Your task to perform on an android device: check out phone information Image 0: 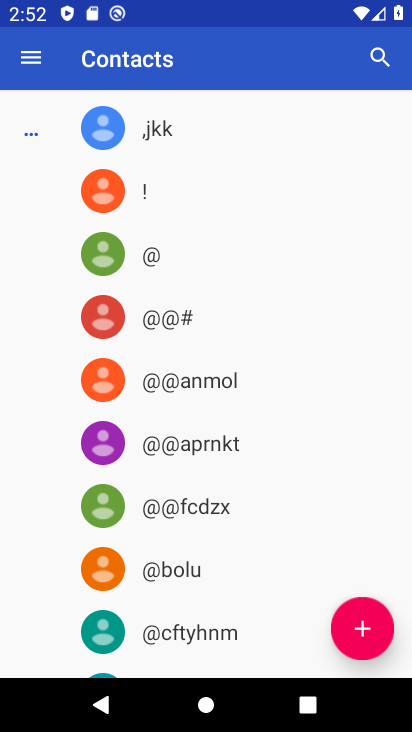
Step 0: press home button
Your task to perform on an android device: check out phone information Image 1: 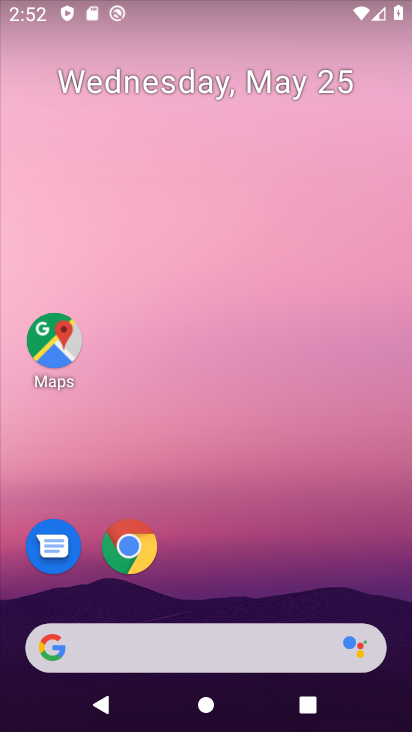
Step 1: drag from (224, 575) to (106, 144)
Your task to perform on an android device: check out phone information Image 2: 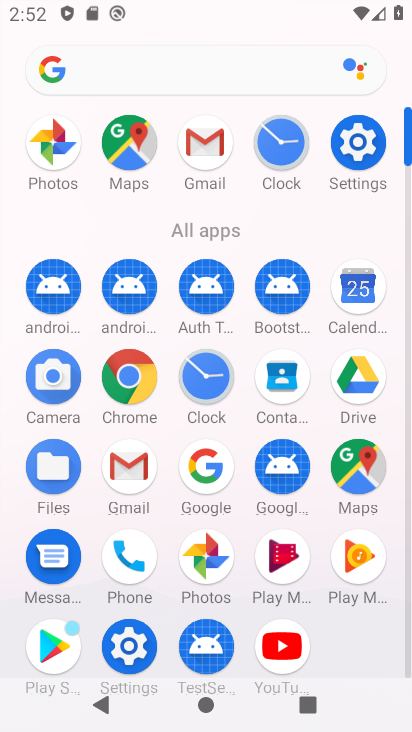
Step 2: click (126, 553)
Your task to perform on an android device: check out phone information Image 3: 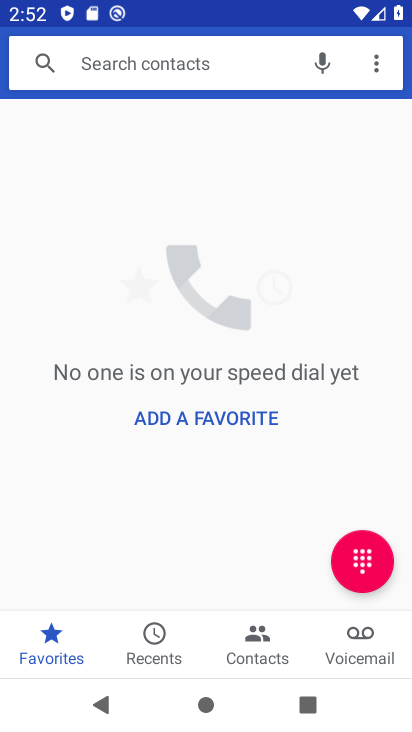
Step 3: click (374, 58)
Your task to perform on an android device: check out phone information Image 4: 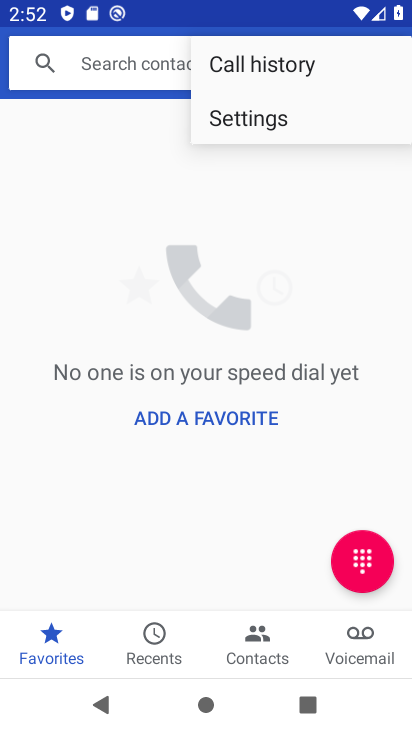
Step 4: click (243, 124)
Your task to perform on an android device: check out phone information Image 5: 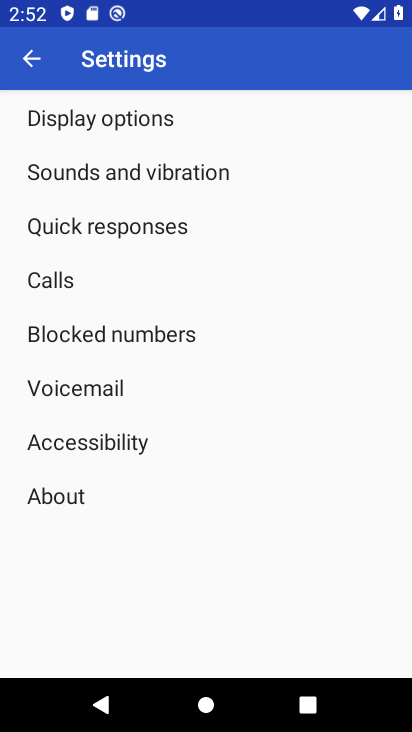
Step 5: click (52, 495)
Your task to perform on an android device: check out phone information Image 6: 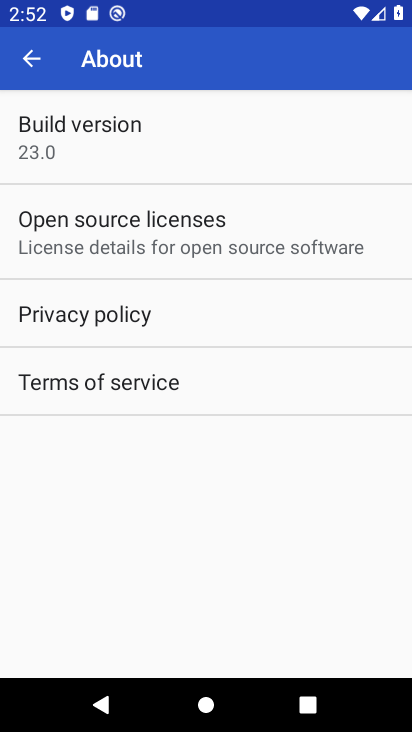
Step 6: task complete